Your task to perform on an android device: Go to Amazon Image 0: 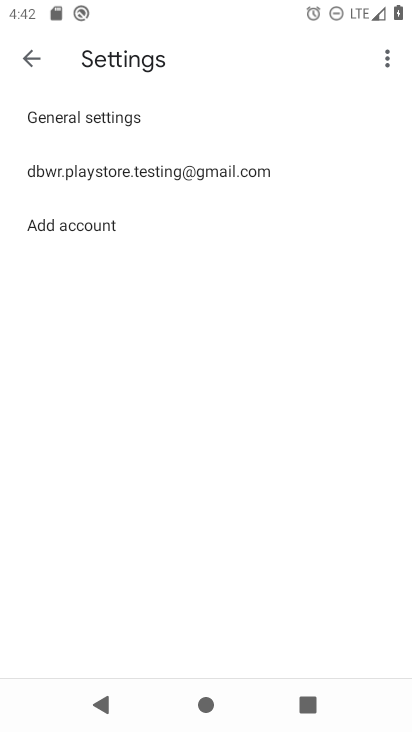
Step 0: press home button
Your task to perform on an android device: Go to Amazon Image 1: 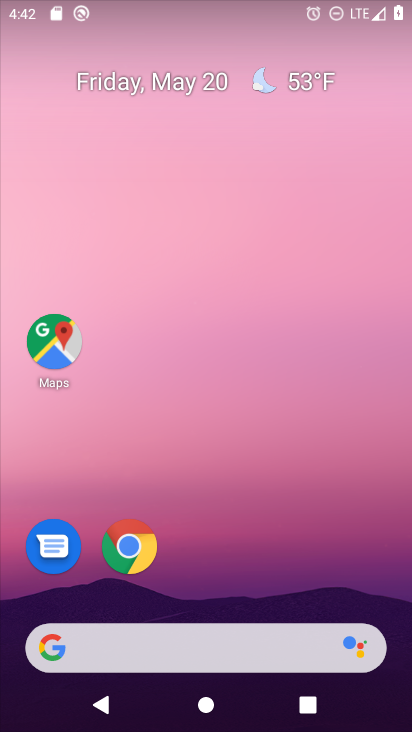
Step 1: click (138, 548)
Your task to perform on an android device: Go to Amazon Image 2: 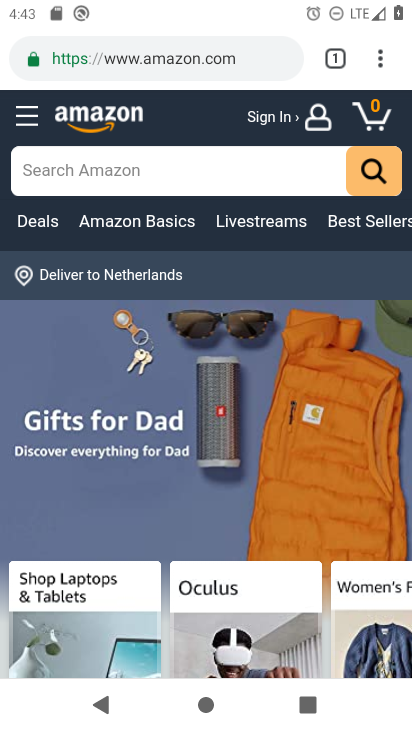
Step 2: task complete